Your task to perform on an android device: open wifi settings Image 0: 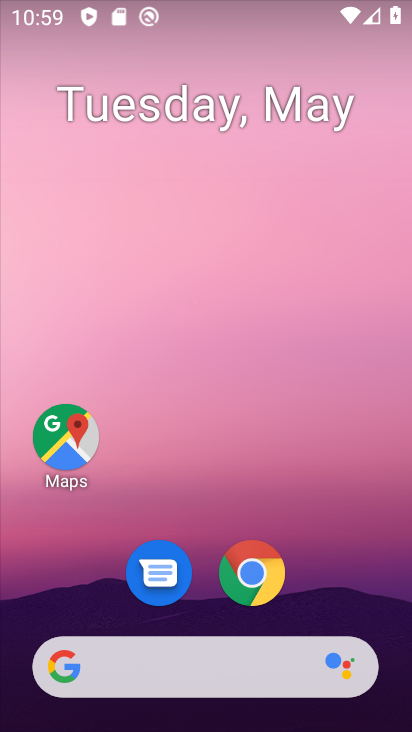
Step 0: drag from (243, 646) to (202, 156)
Your task to perform on an android device: open wifi settings Image 1: 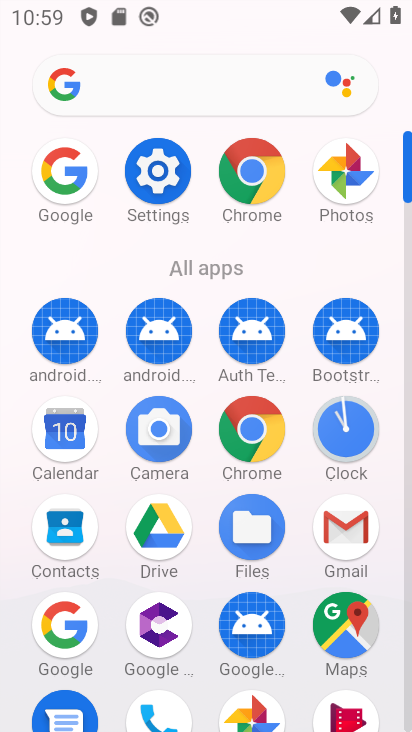
Step 1: click (161, 167)
Your task to perform on an android device: open wifi settings Image 2: 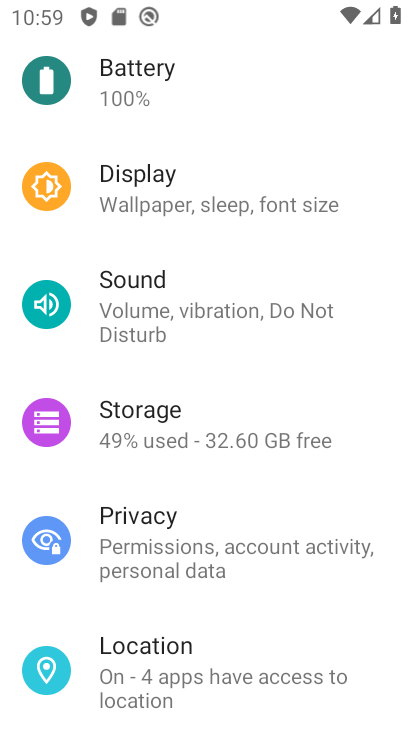
Step 2: drag from (198, 114) to (224, 595)
Your task to perform on an android device: open wifi settings Image 3: 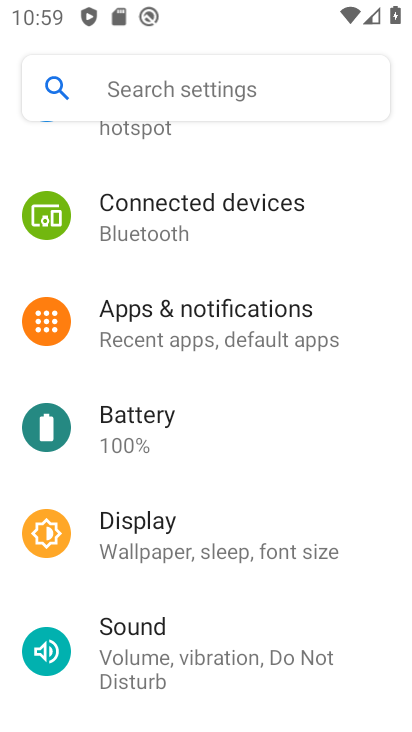
Step 3: drag from (250, 151) to (291, 604)
Your task to perform on an android device: open wifi settings Image 4: 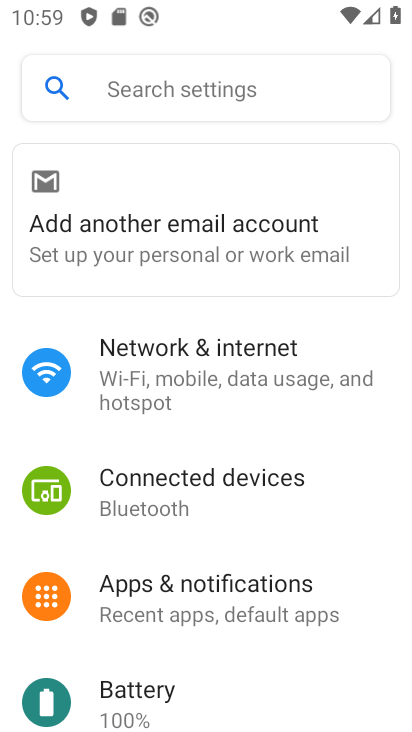
Step 4: click (212, 367)
Your task to perform on an android device: open wifi settings Image 5: 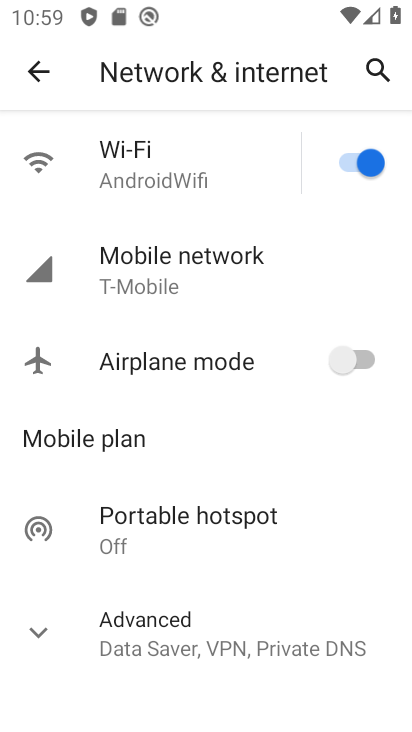
Step 5: click (134, 171)
Your task to perform on an android device: open wifi settings Image 6: 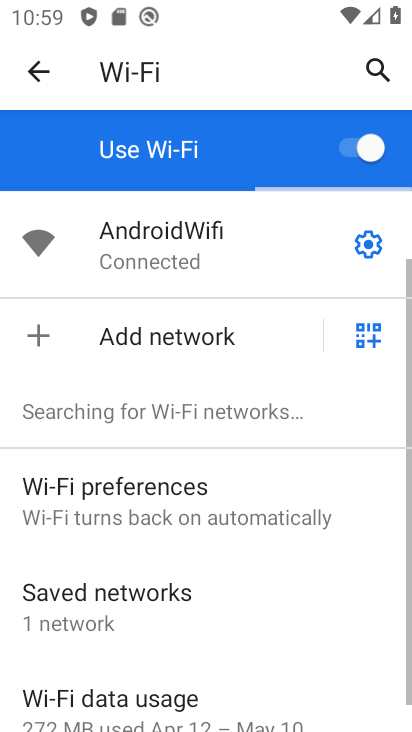
Step 6: click (362, 239)
Your task to perform on an android device: open wifi settings Image 7: 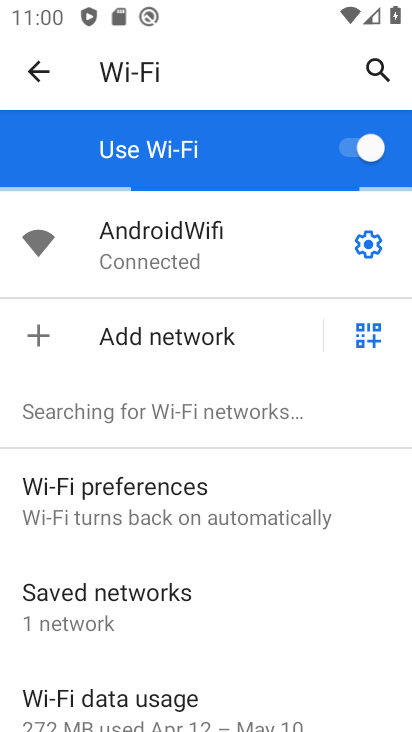
Step 7: click (372, 249)
Your task to perform on an android device: open wifi settings Image 8: 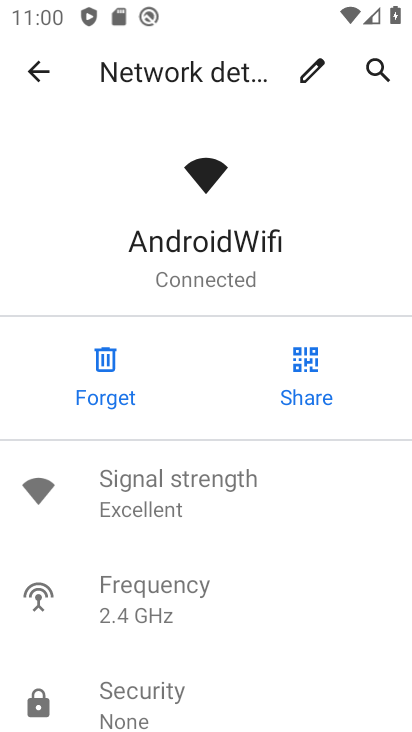
Step 8: task complete